Your task to perform on an android device: toggle priority inbox in the gmail app Image 0: 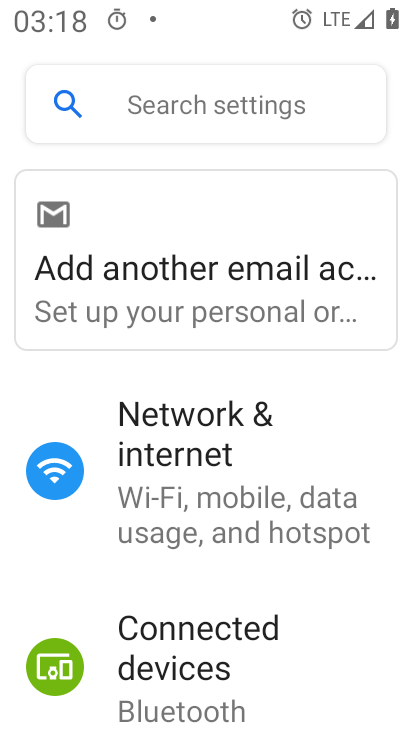
Step 0: press back button
Your task to perform on an android device: toggle priority inbox in the gmail app Image 1: 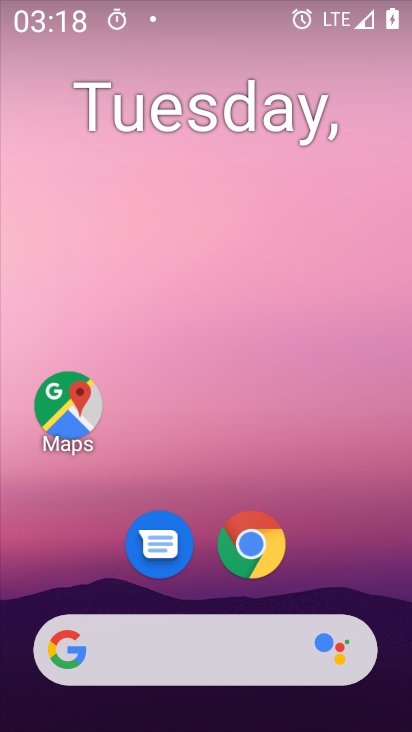
Step 1: drag from (370, 570) to (247, 56)
Your task to perform on an android device: toggle priority inbox in the gmail app Image 2: 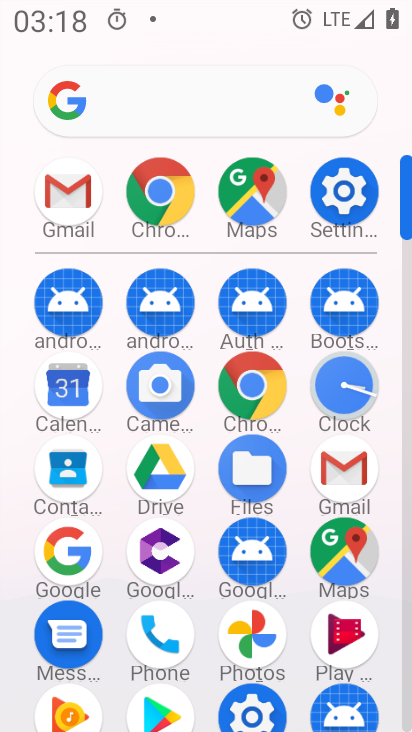
Step 2: drag from (14, 597) to (22, 175)
Your task to perform on an android device: toggle priority inbox in the gmail app Image 3: 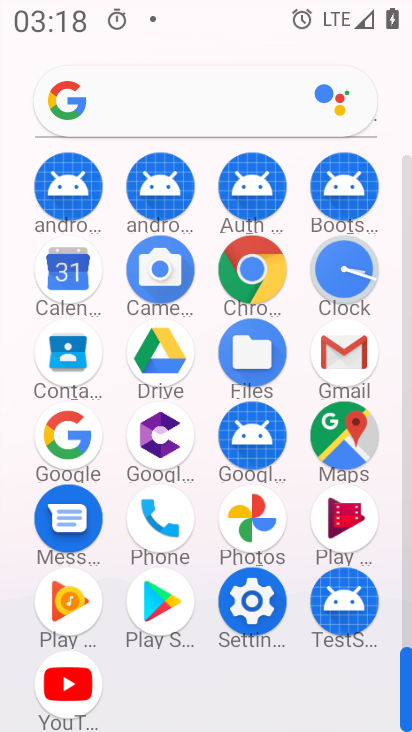
Step 3: click (344, 340)
Your task to perform on an android device: toggle priority inbox in the gmail app Image 4: 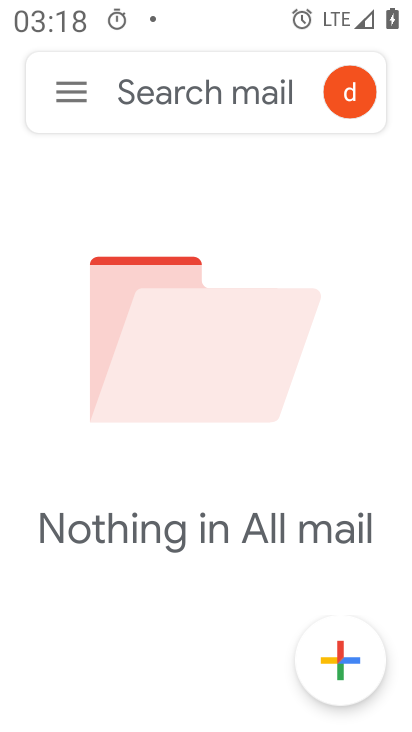
Step 4: click (54, 93)
Your task to perform on an android device: toggle priority inbox in the gmail app Image 5: 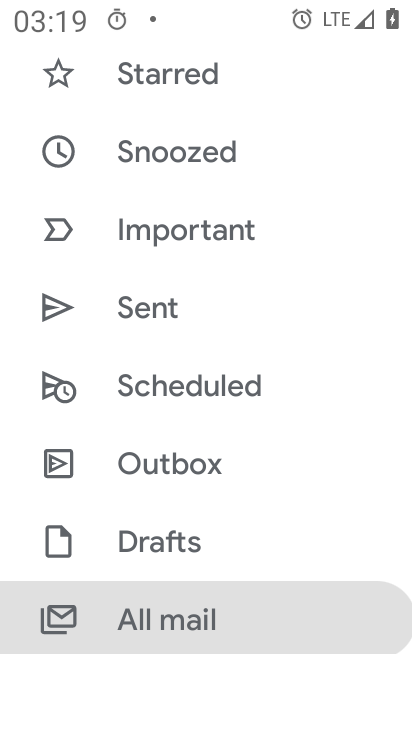
Step 5: drag from (281, 485) to (276, 116)
Your task to perform on an android device: toggle priority inbox in the gmail app Image 6: 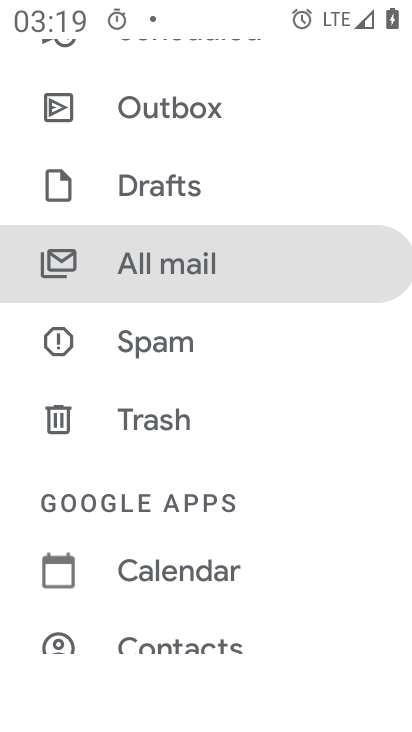
Step 6: drag from (228, 607) to (271, 151)
Your task to perform on an android device: toggle priority inbox in the gmail app Image 7: 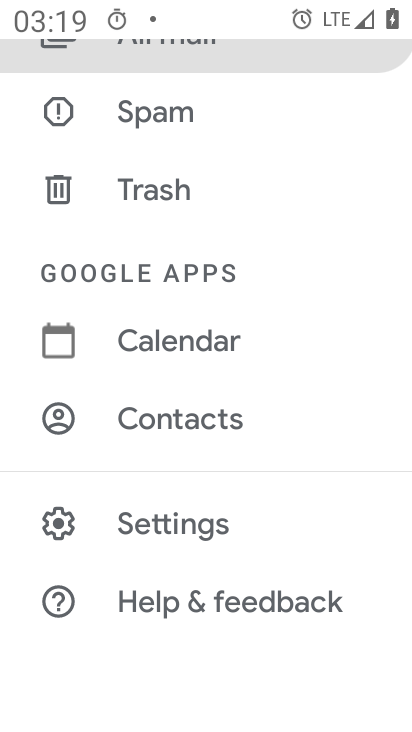
Step 7: click (207, 530)
Your task to perform on an android device: toggle priority inbox in the gmail app Image 8: 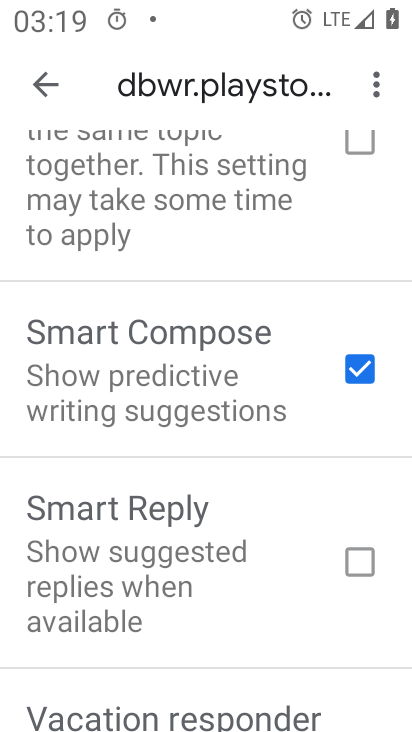
Step 8: drag from (237, 247) to (238, 641)
Your task to perform on an android device: toggle priority inbox in the gmail app Image 9: 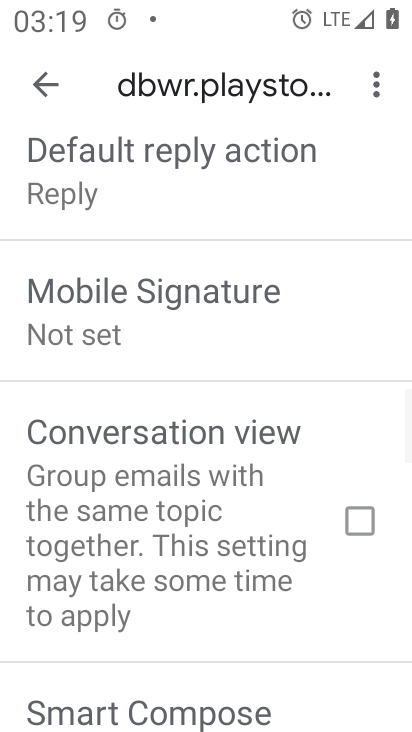
Step 9: drag from (214, 218) to (223, 660)
Your task to perform on an android device: toggle priority inbox in the gmail app Image 10: 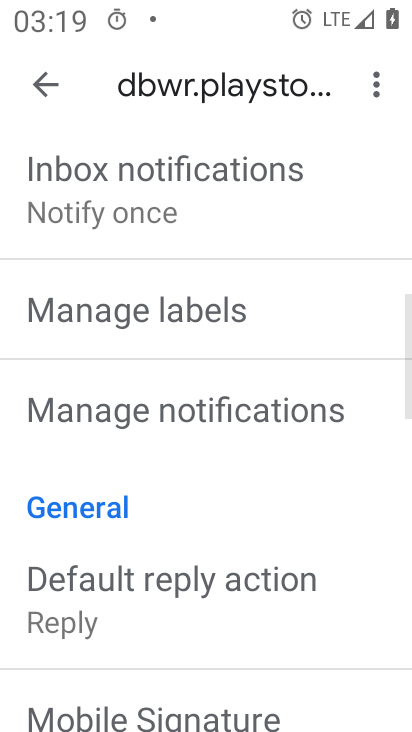
Step 10: drag from (191, 215) to (206, 690)
Your task to perform on an android device: toggle priority inbox in the gmail app Image 11: 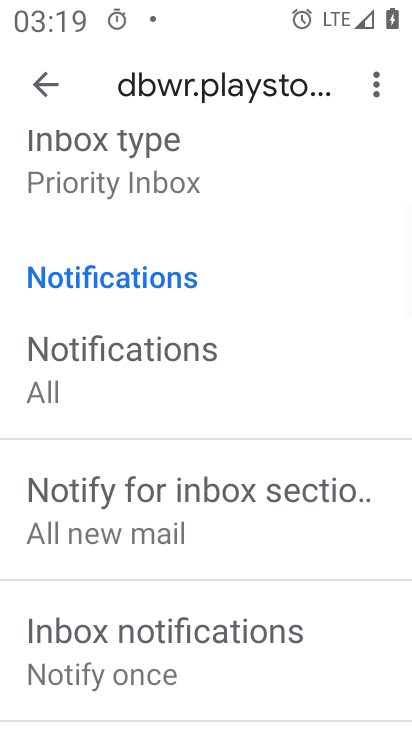
Step 11: drag from (190, 252) to (246, 648)
Your task to perform on an android device: toggle priority inbox in the gmail app Image 12: 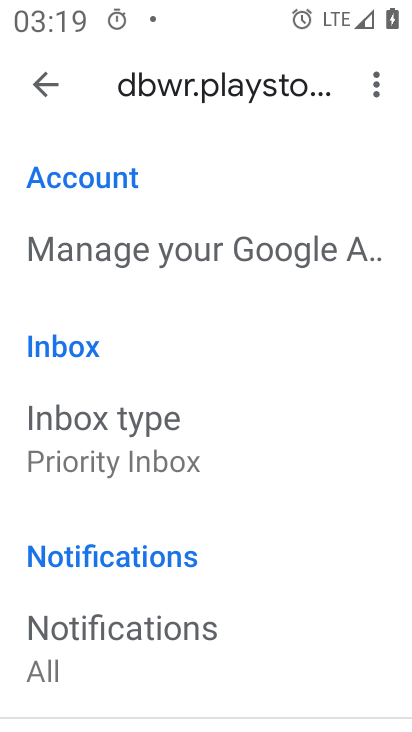
Step 12: click (167, 430)
Your task to perform on an android device: toggle priority inbox in the gmail app Image 13: 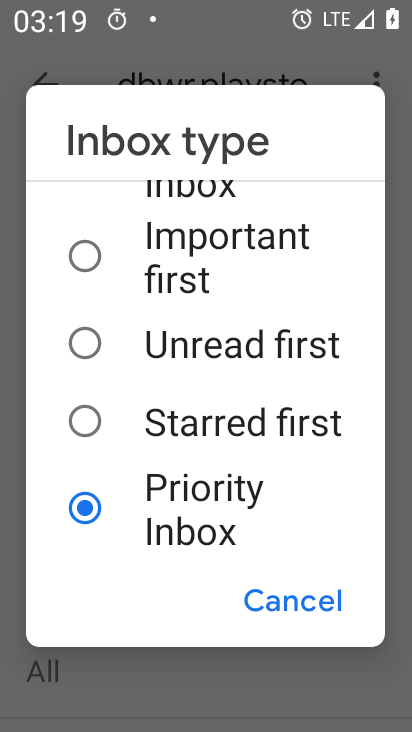
Step 13: click (166, 487)
Your task to perform on an android device: toggle priority inbox in the gmail app Image 14: 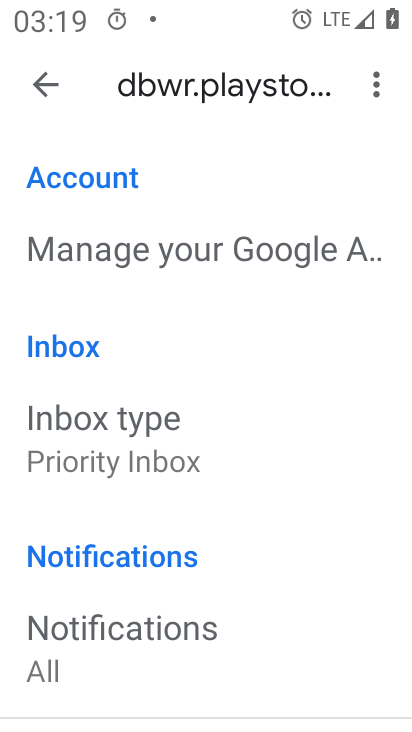
Step 14: task complete